Your task to perform on an android device: toggle improve location accuracy Image 0: 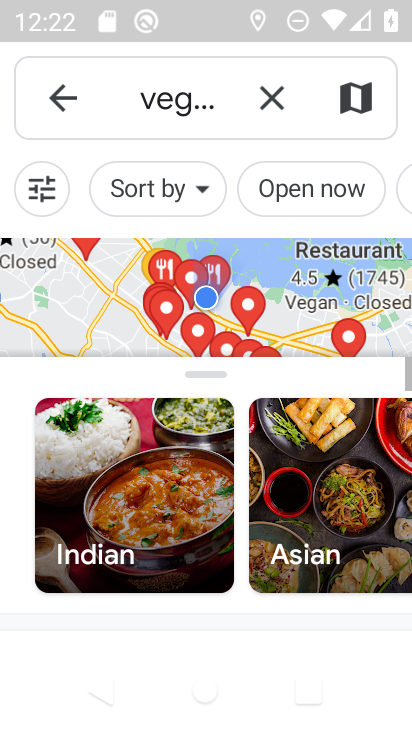
Step 0: press home button
Your task to perform on an android device: toggle improve location accuracy Image 1: 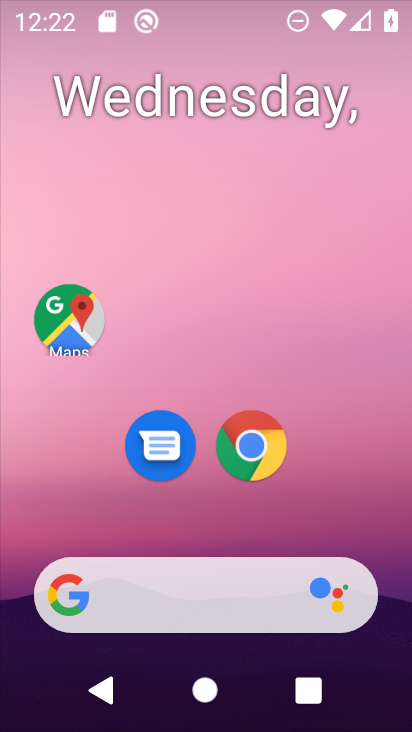
Step 1: drag from (392, 646) to (261, 47)
Your task to perform on an android device: toggle improve location accuracy Image 2: 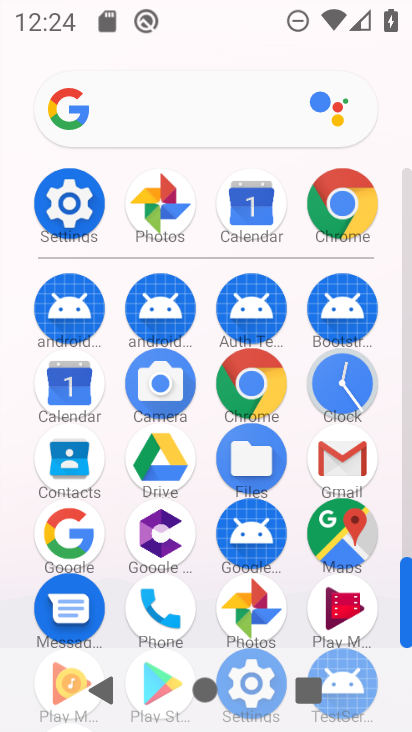
Step 2: click (64, 209)
Your task to perform on an android device: toggle improve location accuracy Image 3: 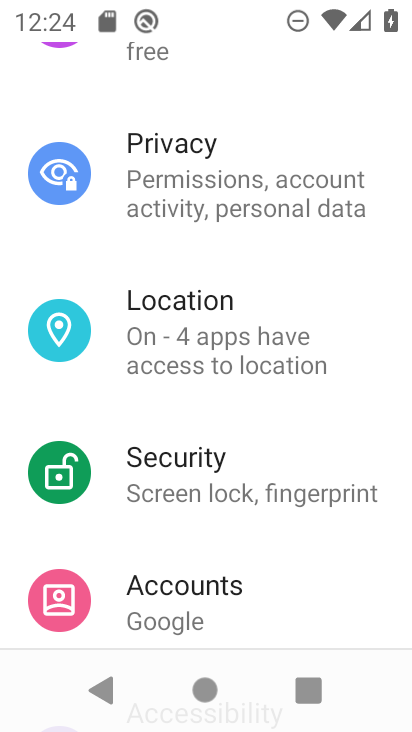
Step 3: click (167, 339)
Your task to perform on an android device: toggle improve location accuracy Image 4: 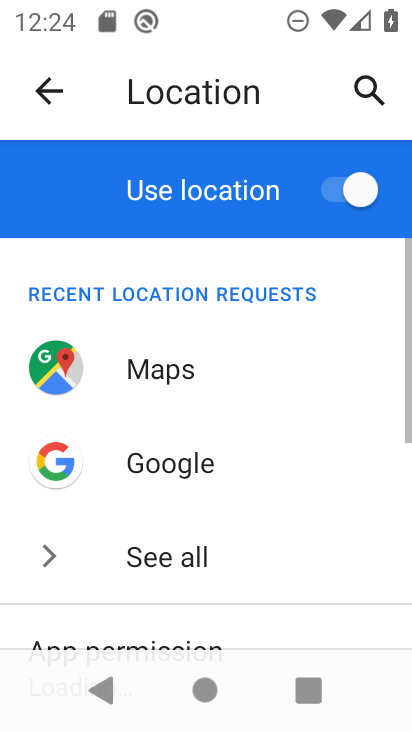
Step 4: drag from (183, 624) to (202, 37)
Your task to perform on an android device: toggle improve location accuracy Image 5: 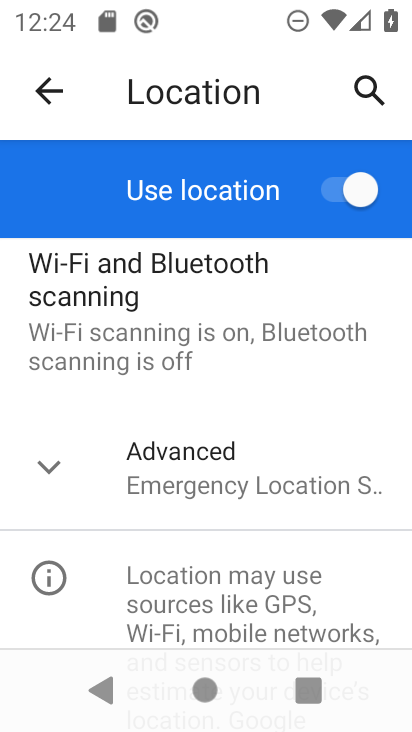
Step 5: click (170, 512)
Your task to perform on an android device: toggle improve location accuracy Image 6: 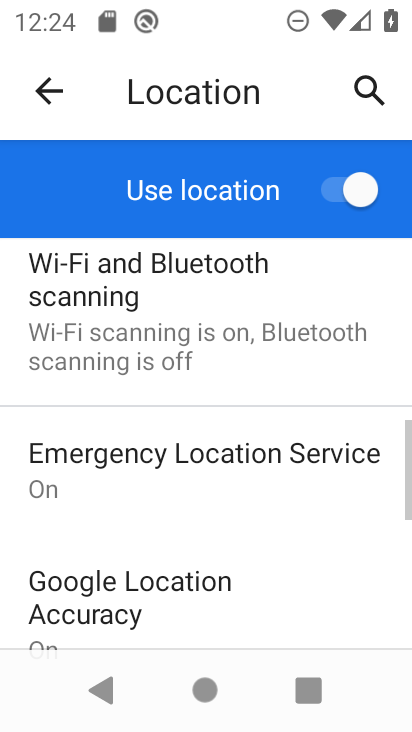
Step 6: click (211, 609)
Your task to perform on an android device: toggle improve location accuracy Image 7: 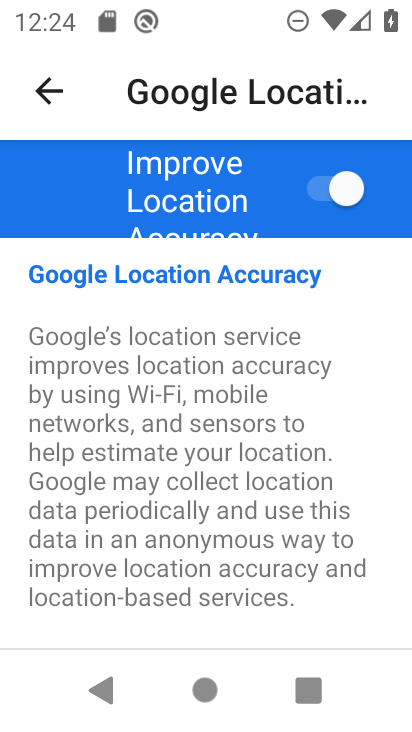
Step 7: click (330, 187)
Your task to perform on an android device: toggle improve location accuracy Image 8: 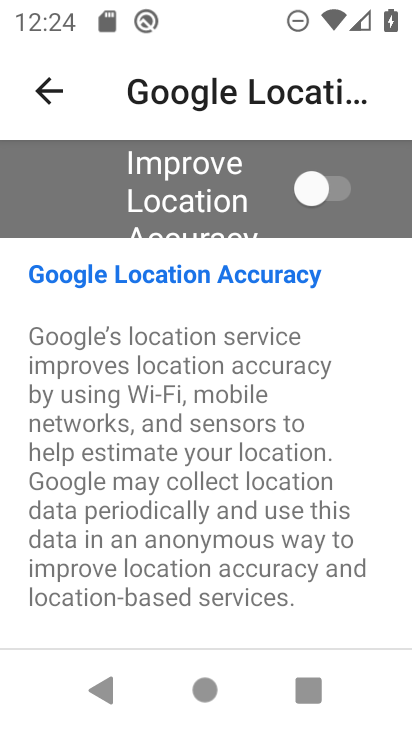
Step 8: task complete